Your task to perform on an android device: turn on data saver in the chrome app Image 0: 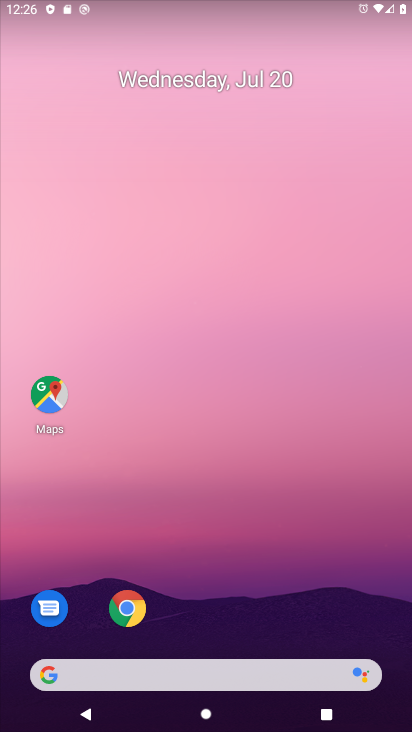
Step 0: click (125, 609)
Your task to perform on an android device: turn on data saver in the chrome app Image 1: 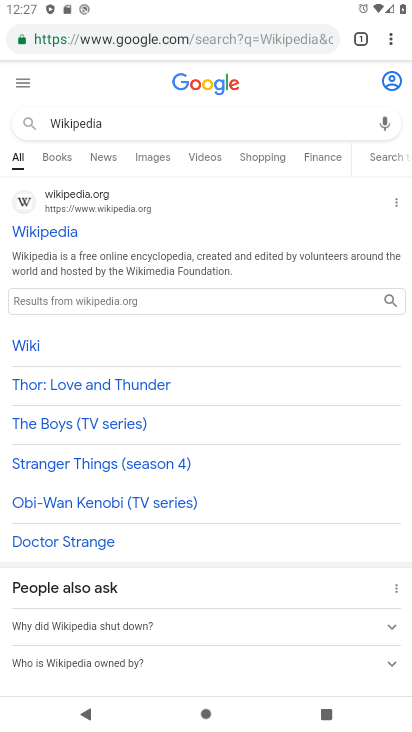
Step 1: click (392, 39)
Your task to perform on an android device: turn on data saver in the chrome app Image 2: 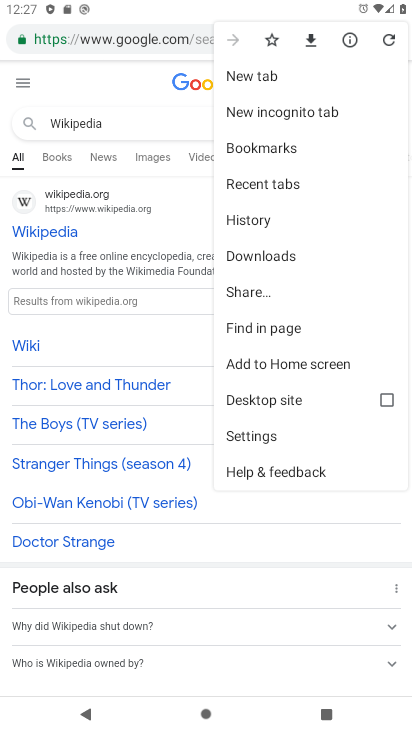
Step 2: click (256, 436)
Your task to perform on an android device: turn on data saver in the chrome app Image 3: 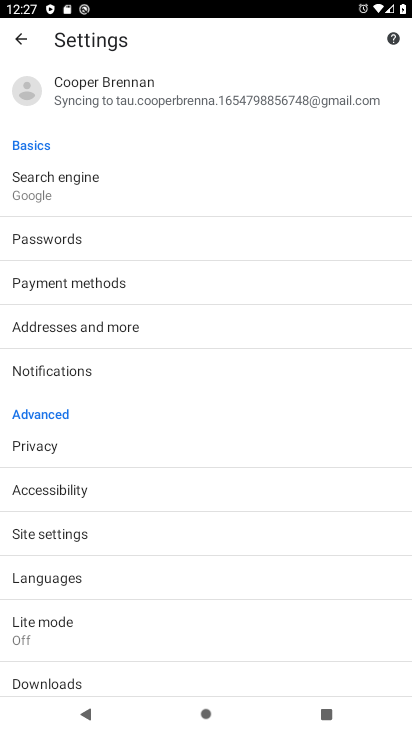
Step 3: drag from (103, 632) to (156, 532)
Your task to perform on an android device: turn on data saver in the chrome app Image 4: 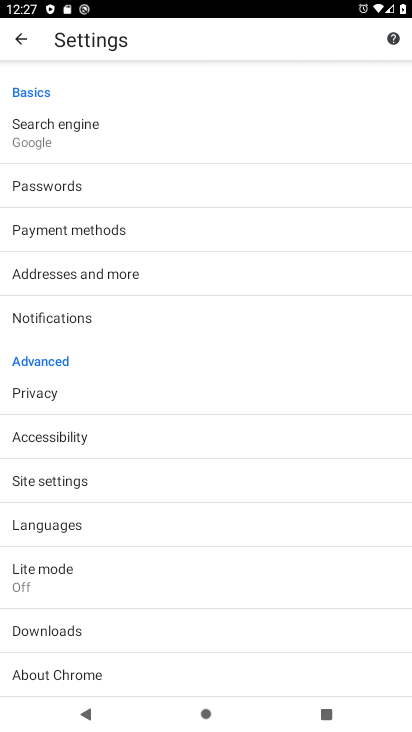
Step 4: click (77, 567)
Your task to perform on an android device: turn on data saver in the chrome app Image 5: 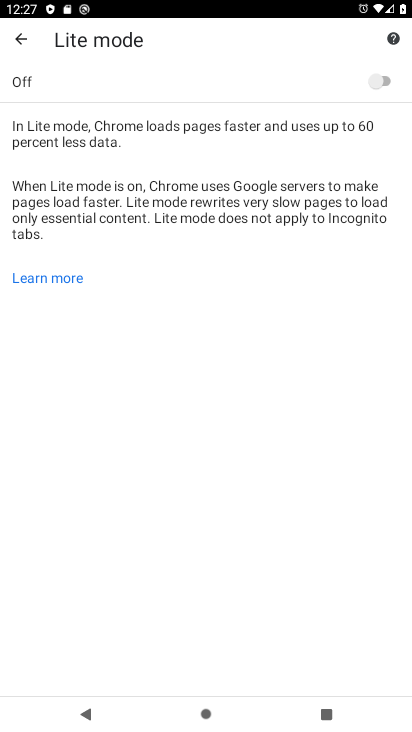
Step 5: click (382, 85)
Your task to perform on an android device: turn on data saver in the chrome app Image 6: 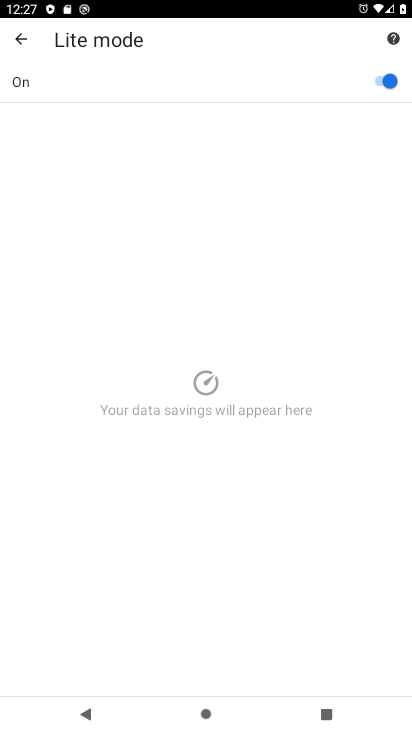
Step 6: task complete